Your task to perform on an android device: Search for pizza restaurants on Maps Image 0: 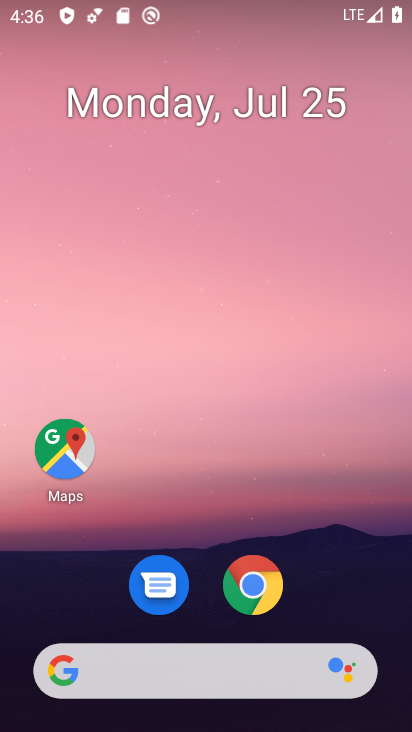
Step 0: click (66, 453)
Your task to perform on an android device: Search for pizza restaurants on Maps Image 1: 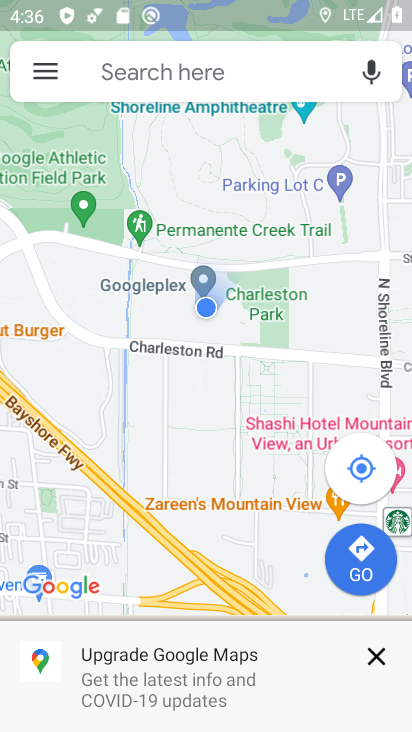
Step 1: click (245, 76)
Your task to perform on an android device: Search for pizza restaurants on Maps Image 2: 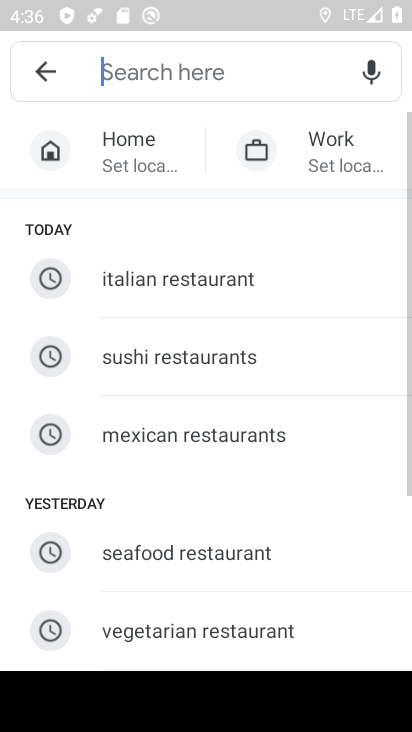
Step 2: drag from (223, 450) to (252, 230)
Your task to perform on an android device: Search for pizza restaurants on Maps Image 3: 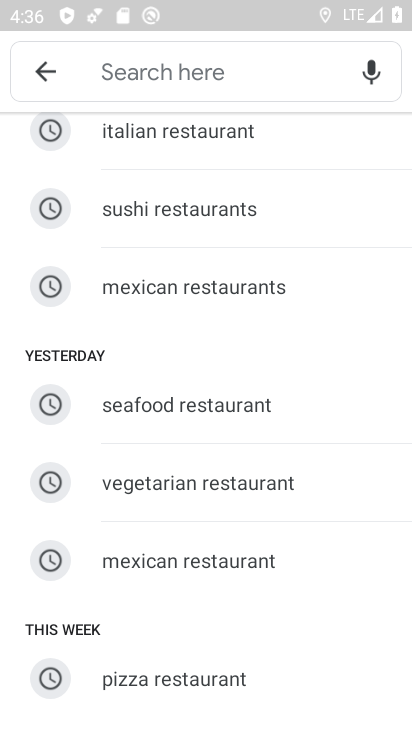
Step 3: click (226, 665)
Your task to perform on an android device: Search for pizza restaurants on Maps Image 4: 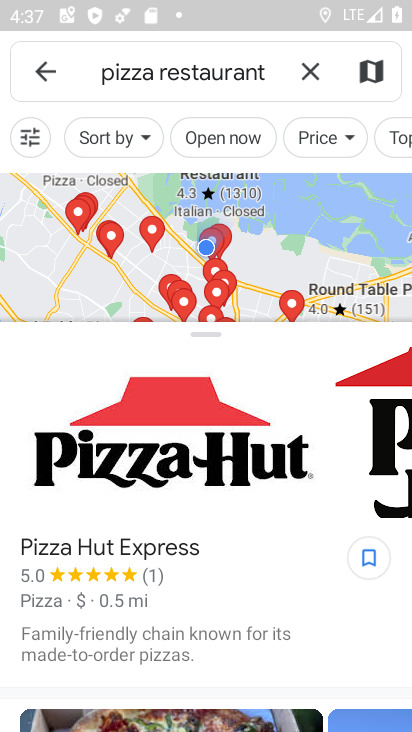
Step 4: task complete